Your task to perform on an android device: open a bookmark in the chrome app Image 0: 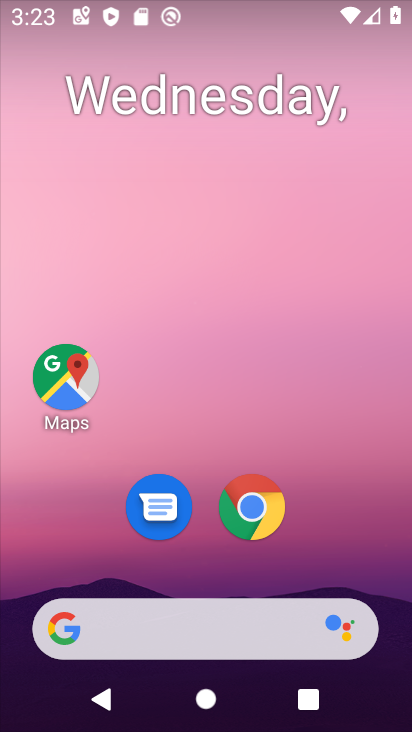
Step 0: click (252, 496)
Your task to perform on an android device: open a bookmark in the chrome app Image 1: 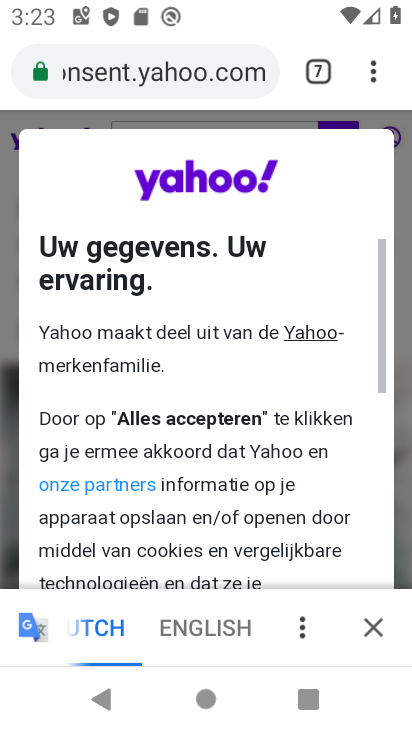
Step 1: click (368, 71)
Your task to perform on an android device: open a bookmark in the chrome app Image 2: 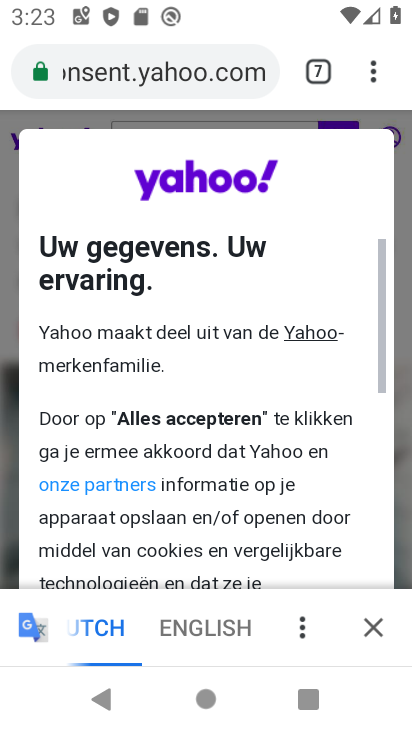
Step 2: click (371, 78)
Your task to perform on an android device: open a bookmark in the chrome app Image 3: 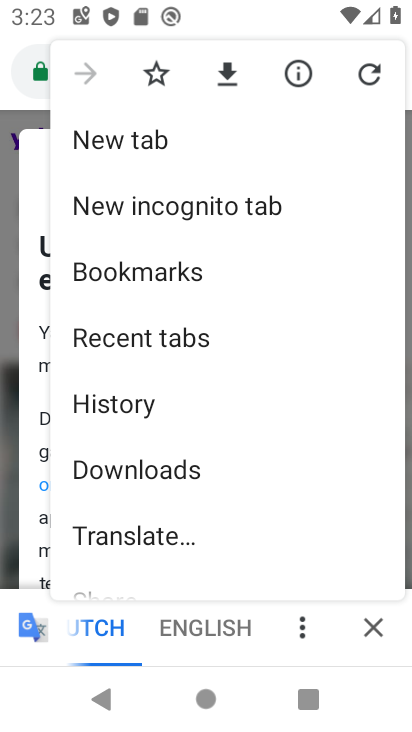
Step 3: click (142, 267)
Your task to perform on an android device: open a bookmark in the chrome app Image 4: 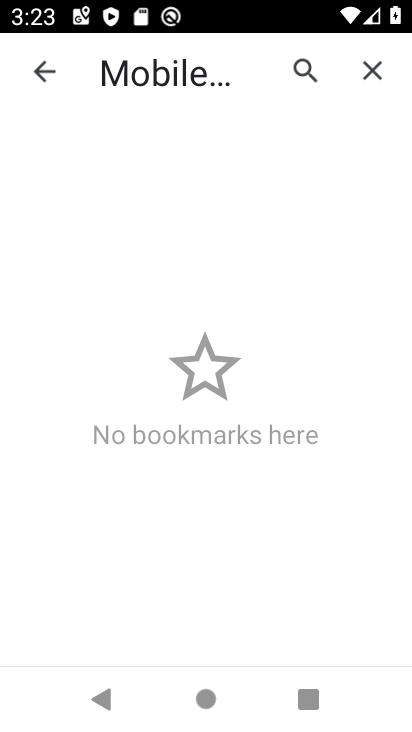
Step 4: task complete